Your task to perform on an android device: delete browsing data in the chrome app Image 0: 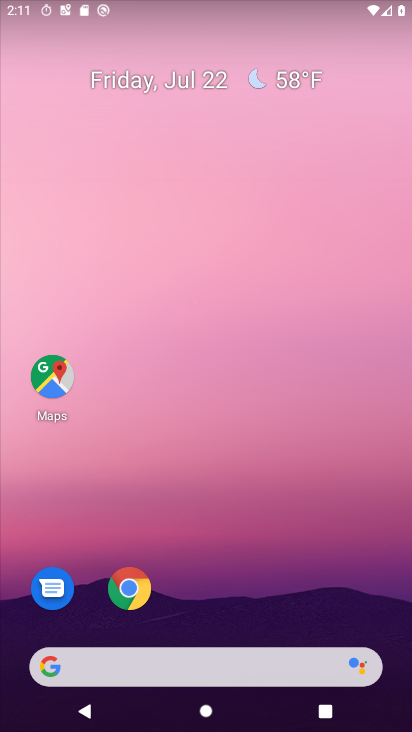
Step 0: press home button
Your task to perform on an android device: delete browsing data in the chrome app Image 1: 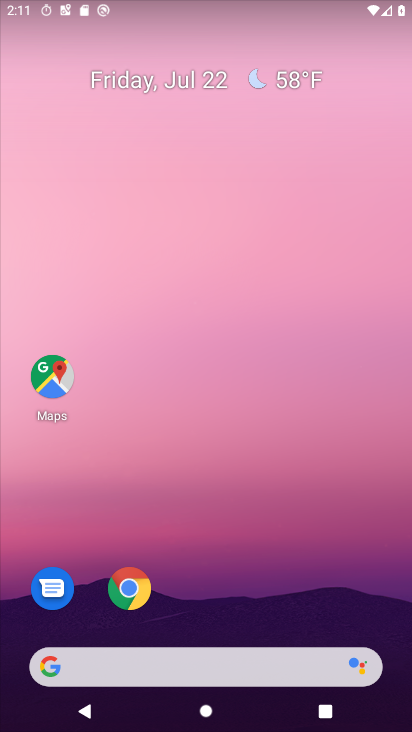
Step 1: click (129, 606)
Your task to perform on an android device: delete browsing data in the chrome app Image 2: 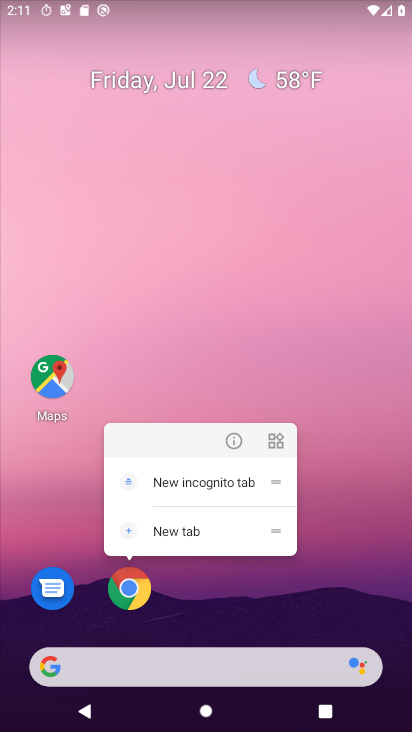
Step 2: click (129, 606)
Your task to perform on an android device: delete browsing data in the chrome app Image 3: 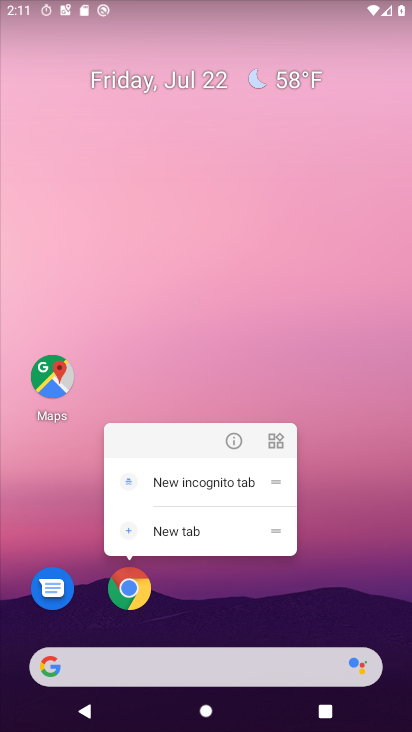
Step 3: click (129, 606)
Your task to perform on an android device: delete browsing data in the chrome app Image 4: 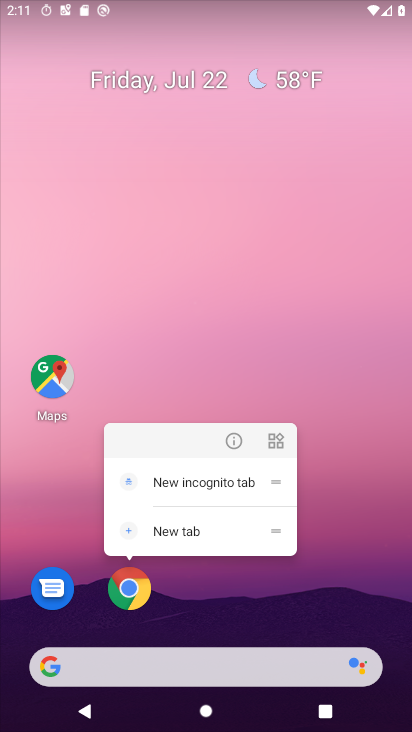
Step 4: click (129, 606)
Your task to perform on an android device: delete browsing data in the chrome app Image 5: 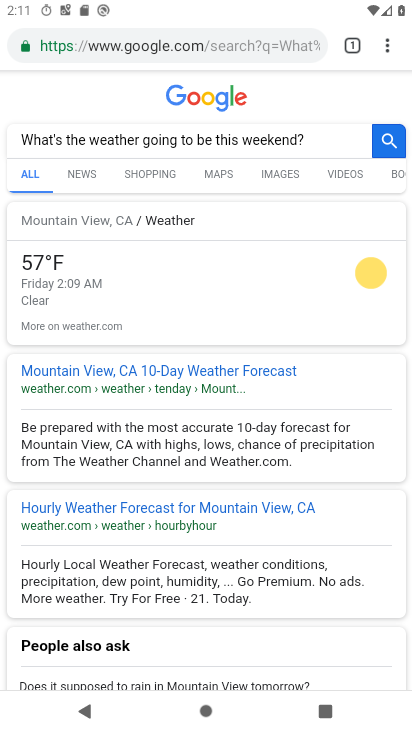
Step 5: drag from (384, 45) to (236, 496)
Your task to perform on an android device: delete browsing data in the chrome app Image 6: 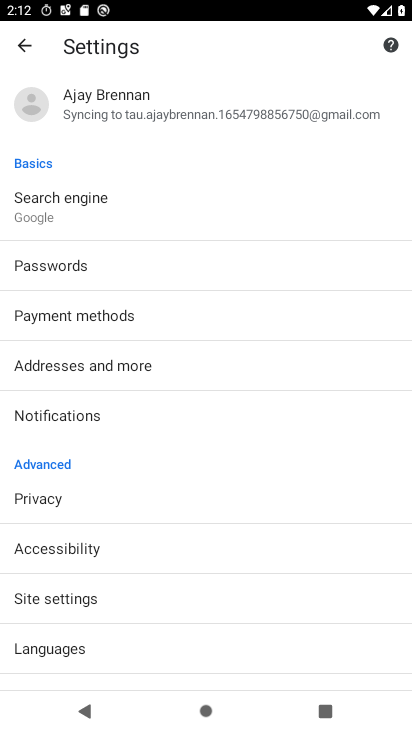
Step 6: click (41, 504)
Your task to perform on an android device: delete browsing data in the chrome app Image 7: 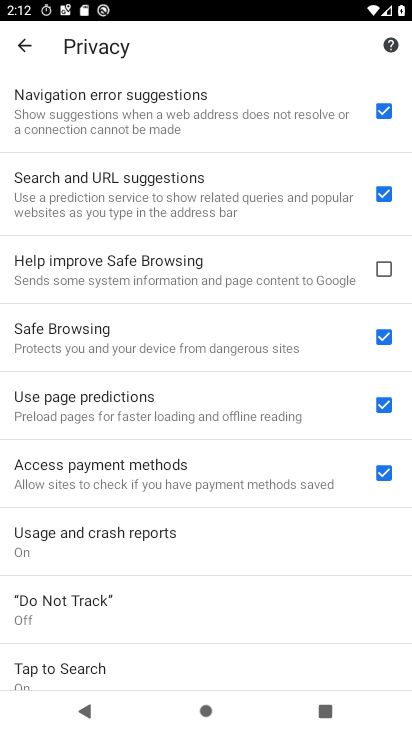
Step 7: drag from (157, 582) to (286, 241)
Your task to perform on an android device: delete browsing data in the chrome app Image 8: 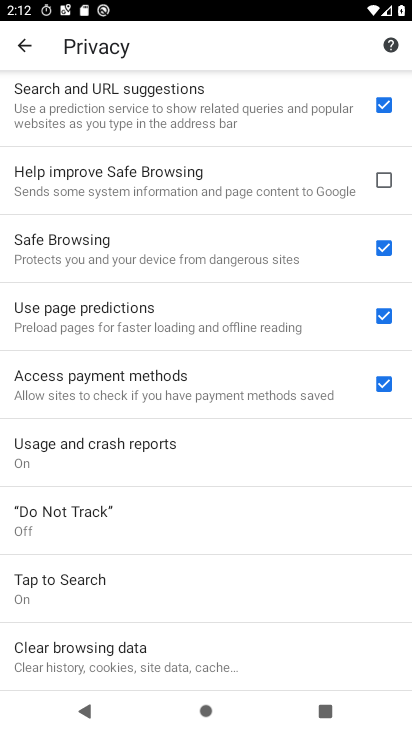
Step 8: click (172, 645)
Your task to perform on an android device: delete browsing data in the chrome app Image 9: 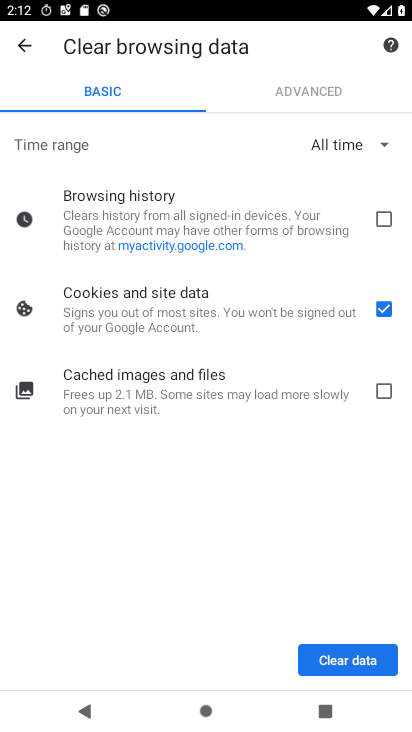
Step 9: click (354, 658)
Your task to perform on an android device: delete browsing data in the chrome app Image 10: 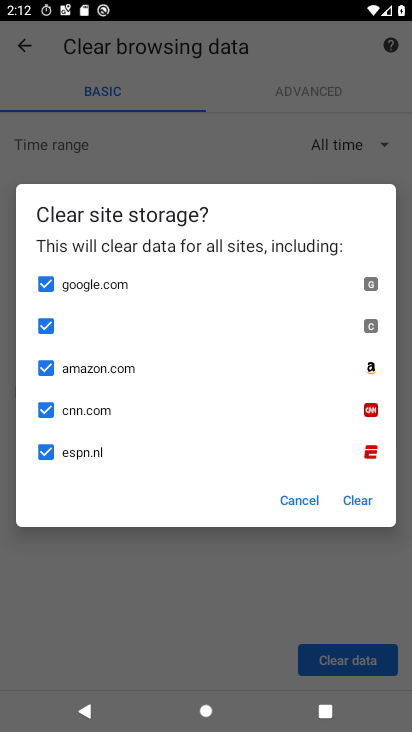
Step 10: click (367, 500)
Your task to perform on an android device: delete browsing data in the chrome app Image 11: 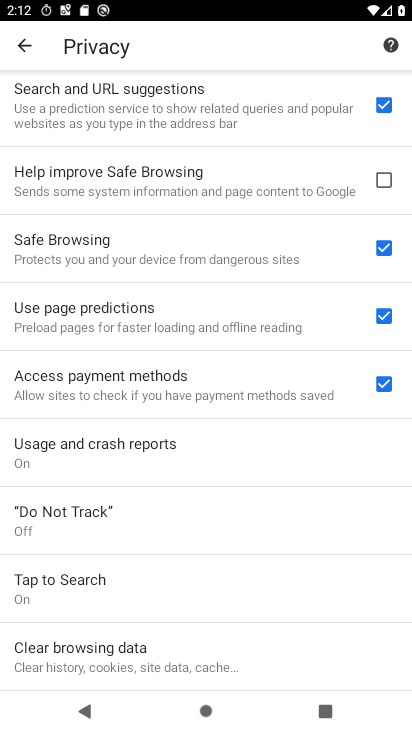
Step 11: task complete